Your task to perform on an android device: Go to Google maps Image 0: 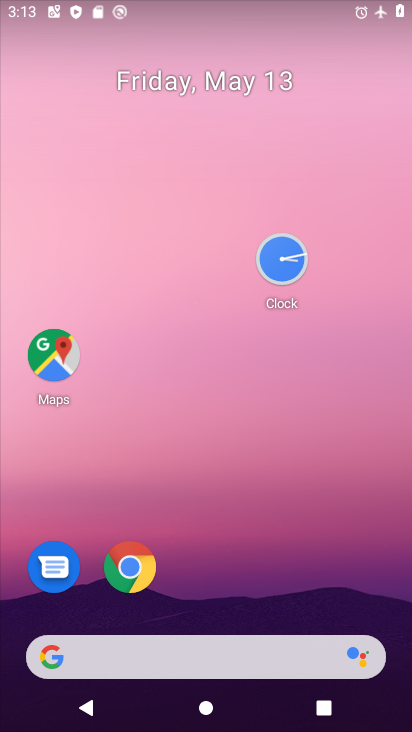
Step 0: click (31, 354)
Your task to perform on an android device: Go to Google maps Image 1: 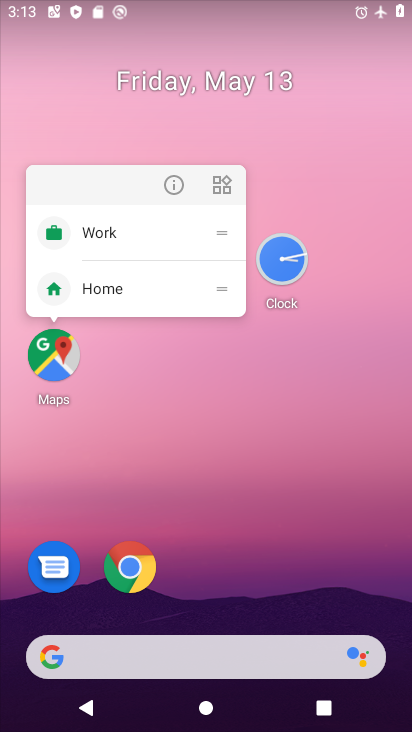
Step 1: click (47, 368)
Your task to perform on an android device: Go to Google maps Image 2: 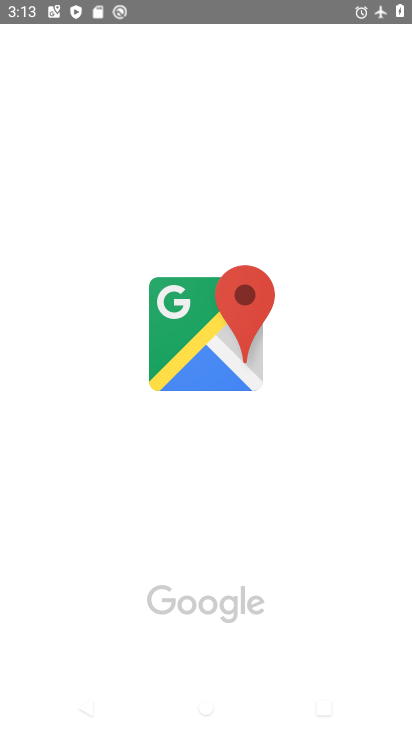
Step 2: task complete